Your task to perform on an android device: Turn off the flashlight Image 0: 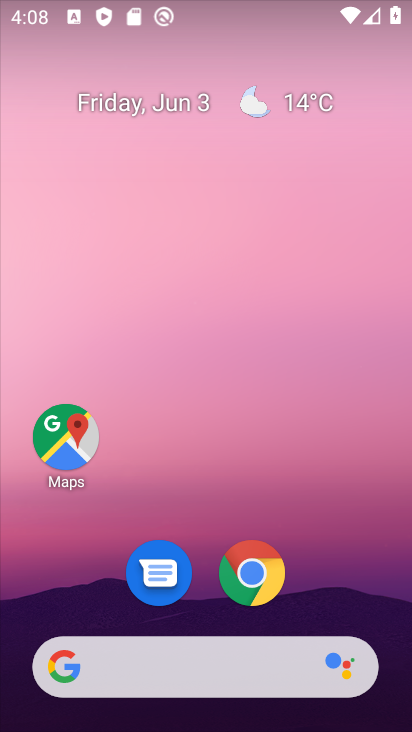
Step 0: drag from (302, 671) to (330, 78)
Your task to perform on an android device: Turn off the flashlight Image 1: 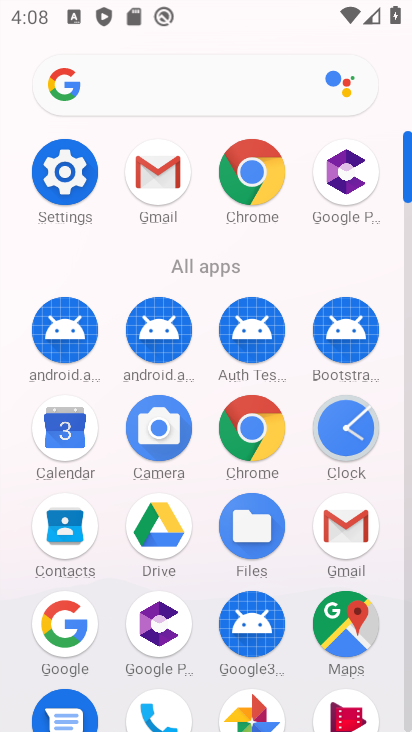
Step 1: task complete